Your task to perform on an android device: Go to CNN.com Image 0: 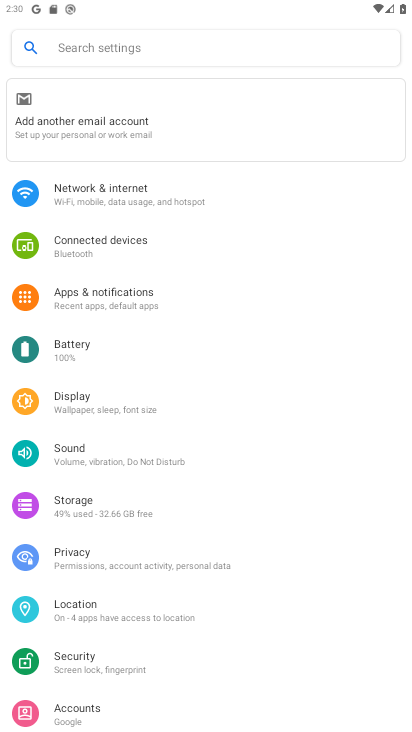
Step 0: press home button
Your task to perform on an android device: Go to CNN.com Image 1: 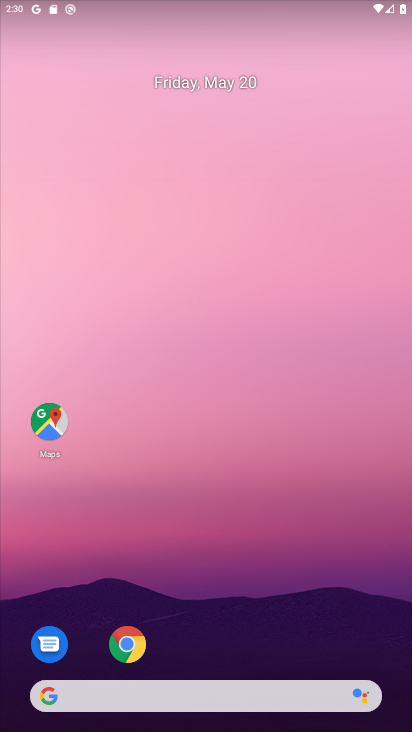
Step 1: drag from (194, 651) to (209, 261)
Your task to perform on an android device: Go to CNN.com Image 2: 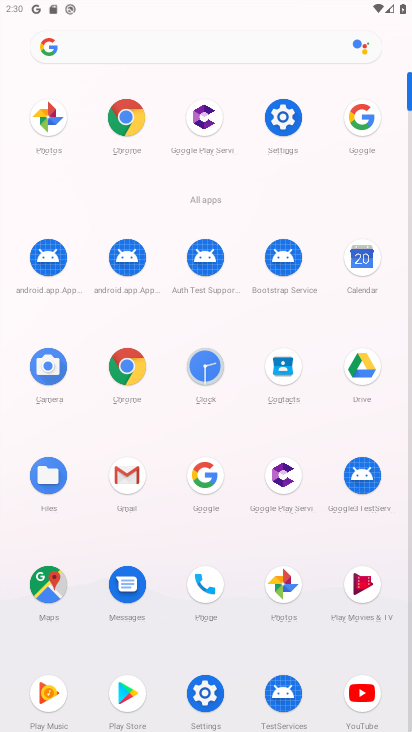
Step 2: click (197, 475)
Your task to perform on an android device: Go to CNN.com Image 3: 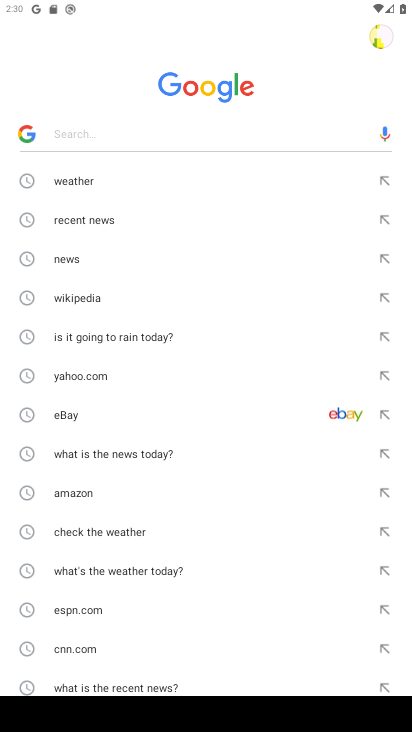
Step 3: click (113, 654)
Your task to perform on an android device: Go to CNN.com Image 4: 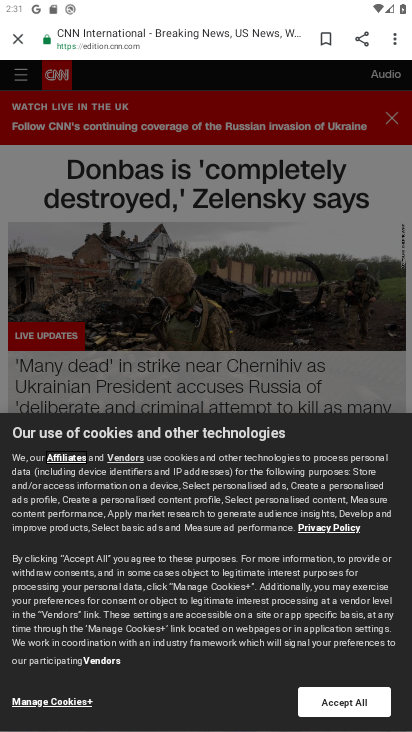
Step 4: task complete